Your task to perform on an android device: Is it going to rain tomorrow? Image 0: 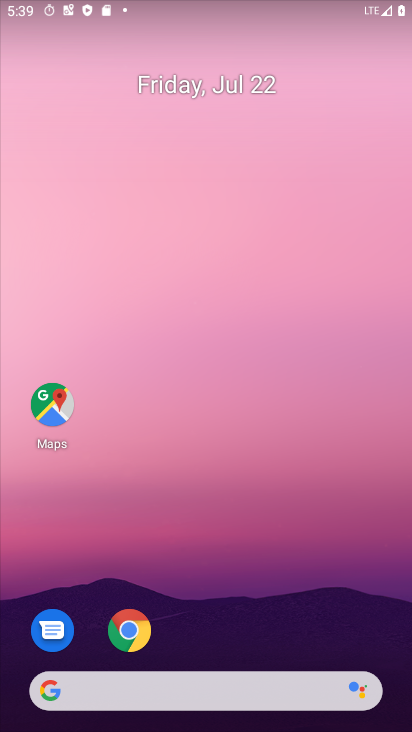
Step 0: drag from (192, 543) to (201, 92)
Your task to perform on an android device: Is it going to rain tomorrow? Image 1: 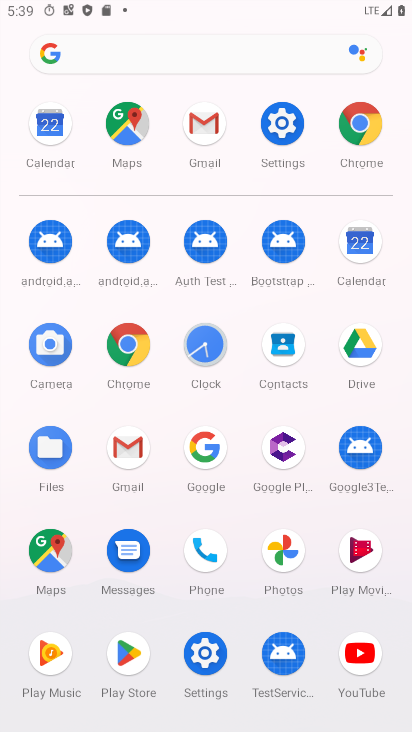
Step 1: click (132, 345)
Your task to perform on an android device: Is it going to rain tomorrow? Image 2: 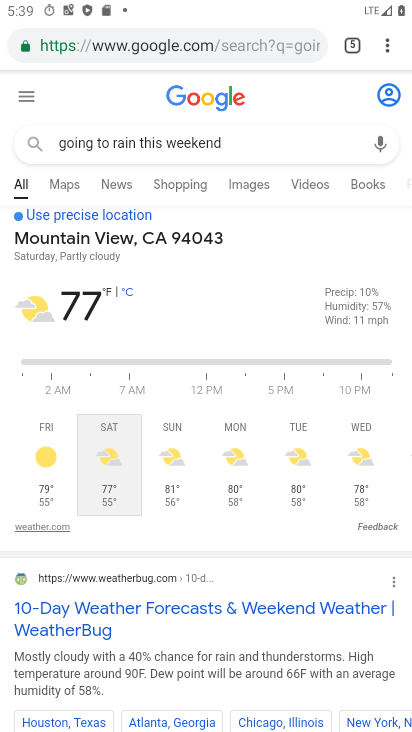
Step 2: click (248, 139)
Your task to perform on an android device: Is it going to rain tomorrow? Image 3: 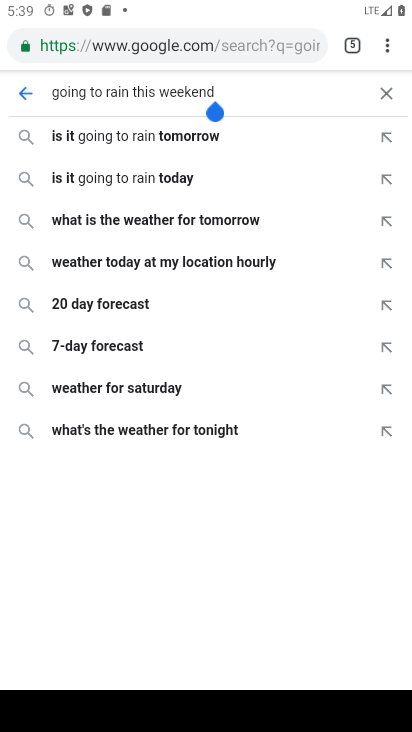
Step 3: click (248, 139)
Your task to perform on an android device: Is it going to rain tomorrow? Image 4: 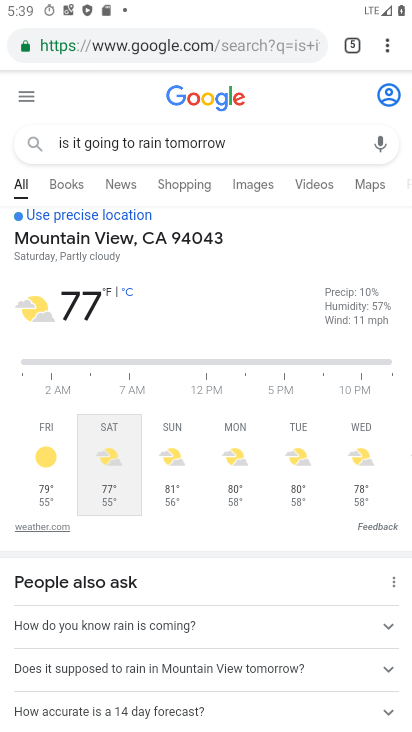
Step 4: task complete